Your task to perform on an android device: turn notification dots off Image 0: 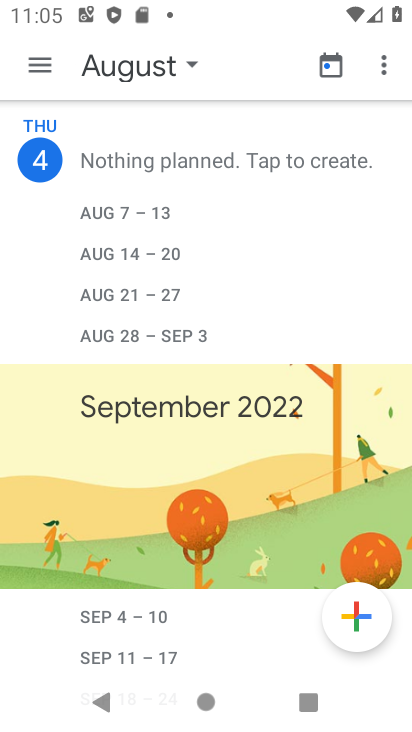
Step 0: press home button
Your task to perform on an android device: turn notification dots off Image 1: 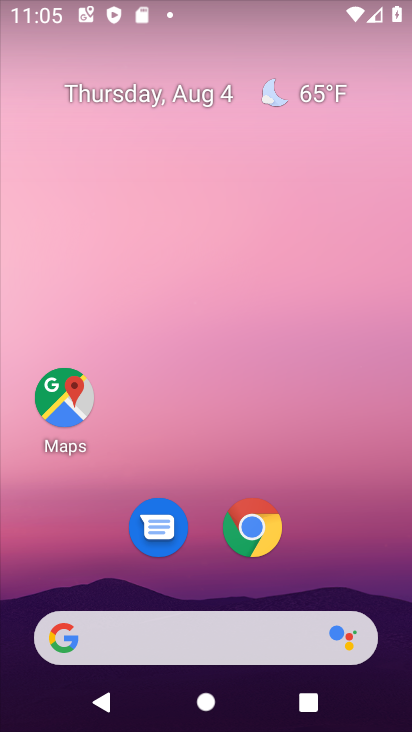
Step 1: drag from (161, 692) to (191, 117)
Your task to perform on an android device: turn notification dots off Image 2: 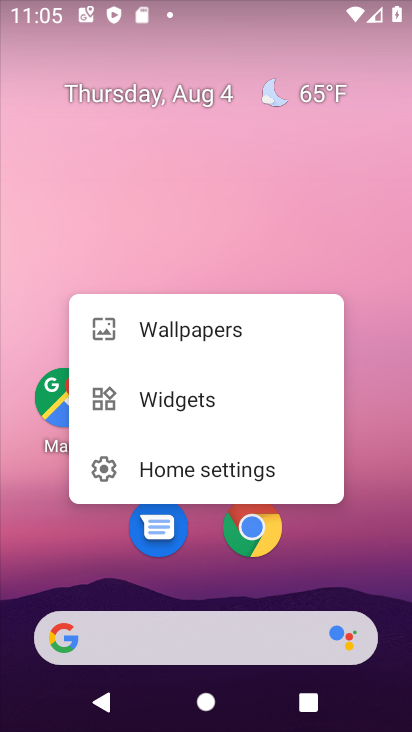
Step 2: drag from (160, 681) to (334, 311)
Your task to perform on an android device: turn notification dots off Image 3: 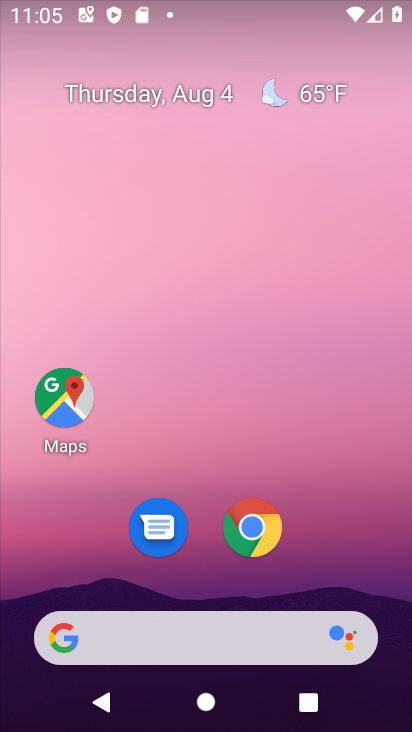
Step 3: drag from (167, 682) to (311, 175)
Your task to perform on an android device: turn notification dots off Image 4: 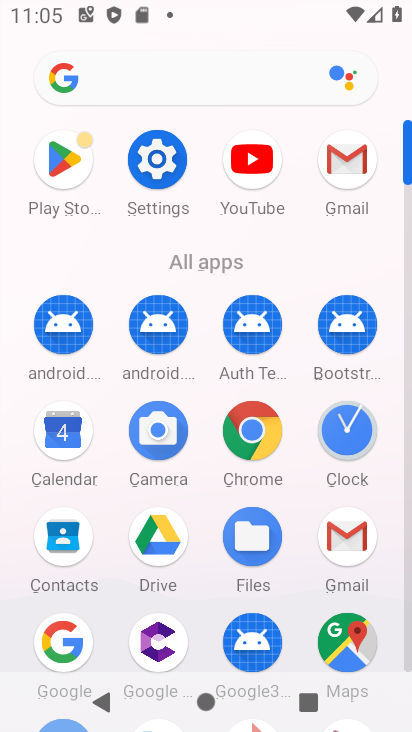
Step 4: click (174, 155)
Your task to perform on an android device: turn notification dots off Image 5: 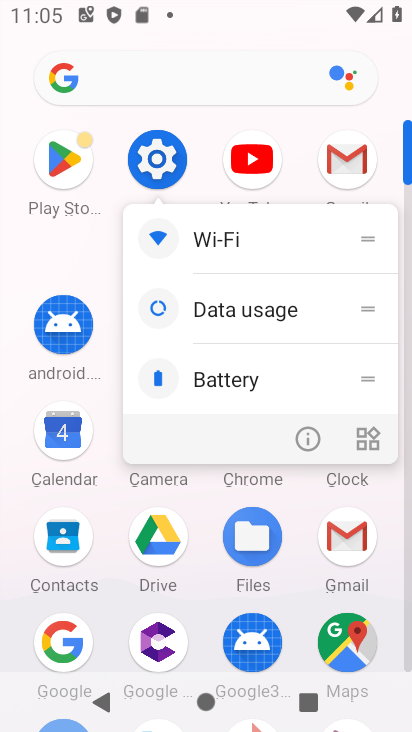
Step 5: click (174, 155)
Your task to perform on an android device: turn notification dots off Image 6: 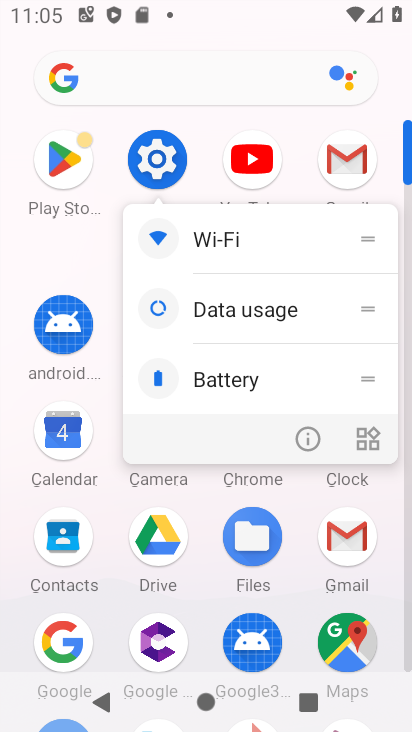
Step 6: click (167, 161)
Your task to perform on an android device: turn notification dots off Image 7: 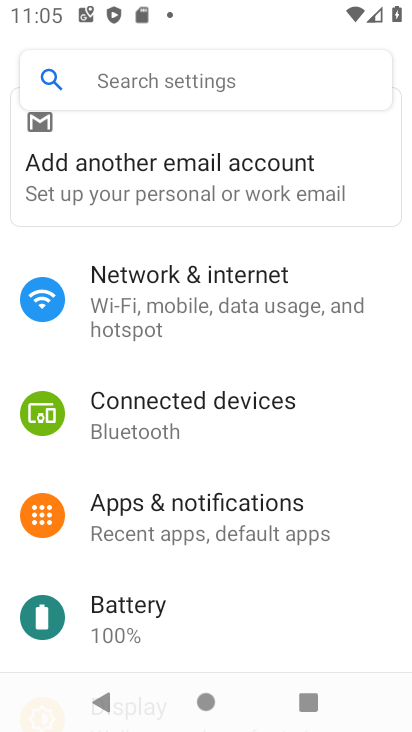
Step 7: click (225, 525)
Your task to perform on an android device: turn notification dots off Image 8: 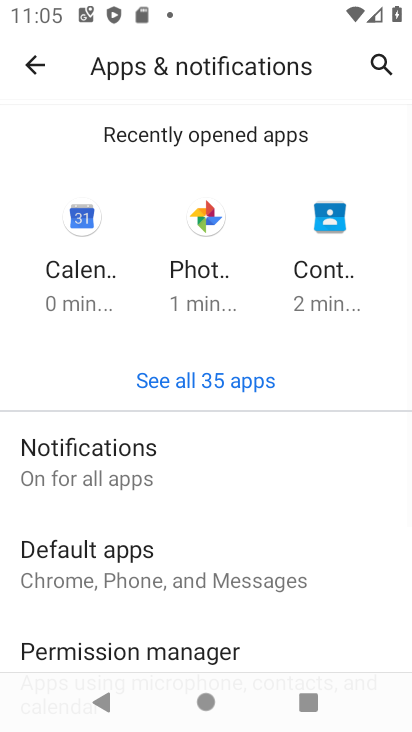
Step 8: drag from (346, 547) to (350, 196)
Your task to perform on an android device: turn notification dots off Image 9: 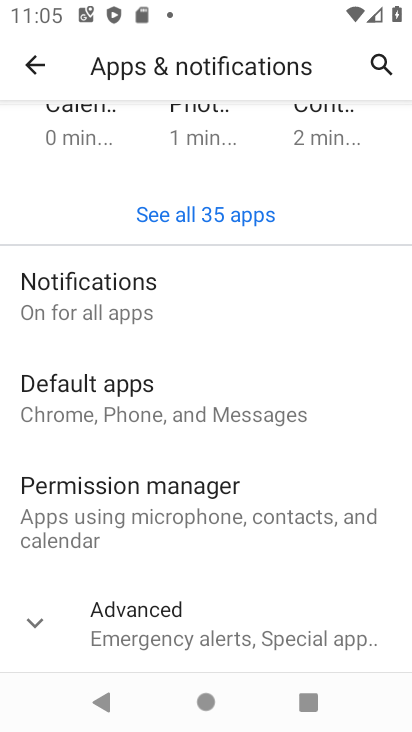
Step 9: click (298, 286)
Your task to perform on an android device: turn notification dots off Image 10: 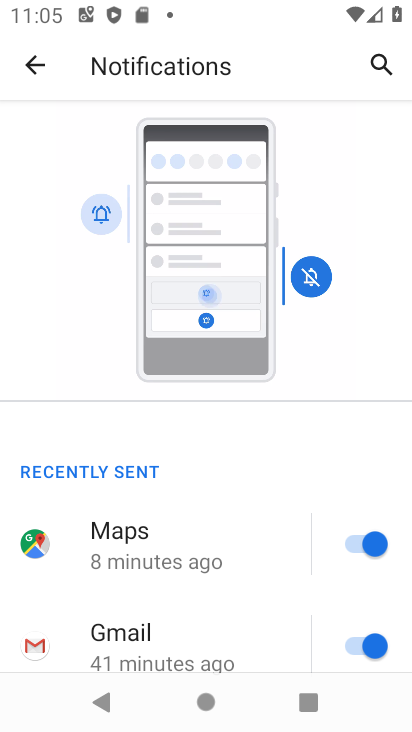
Step 10: drag from (218, 561) to (296, 2)
Your task to perform on an android device: turn notification dots off Image 11: 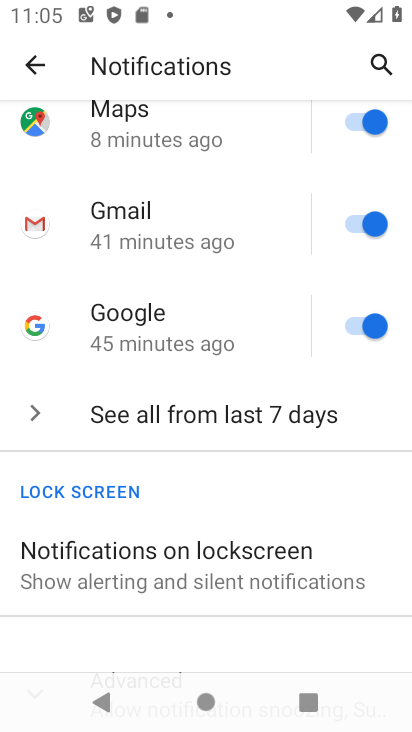
Step 11: drag from (237, 589) to (306, 10)
Your task to perform on an android device: turn notification dots off Image 12: 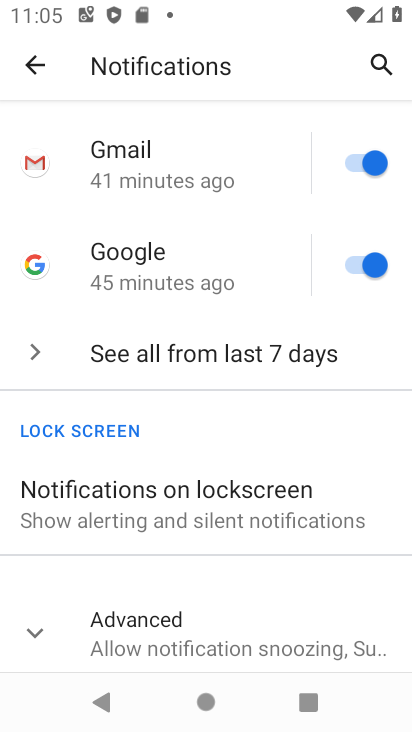
Step 12: click (260, 633)
Your task to perform on an android device: turn notification dots off Image 13: 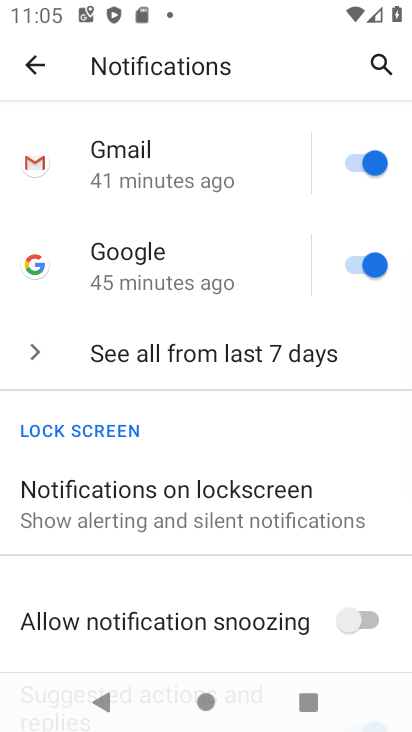
Step 13: drag from (275, 571) to (313, 104)
Your task to perform on an android device: turn notification dots off Image 14: 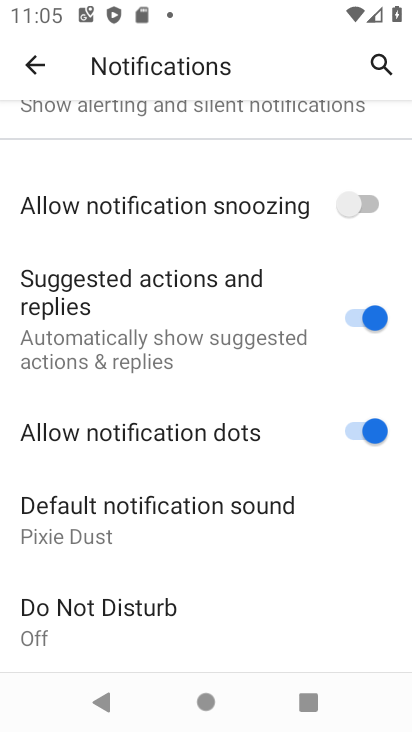
Step 14: click (383, 429)
Your task to perform on an android device: turn notification dots off Image 15: 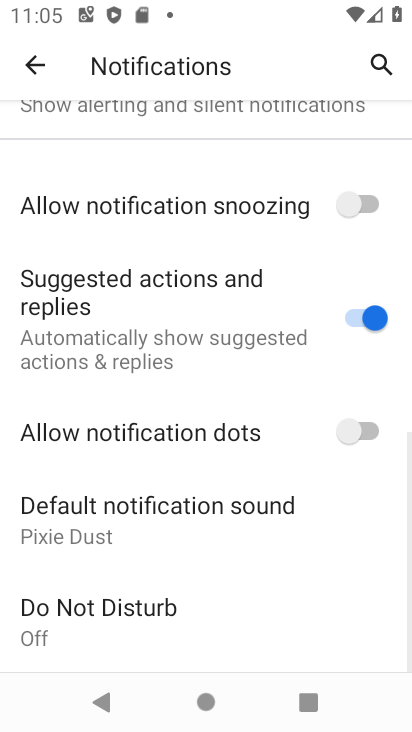
Step 15: task complete